Your task to perform on an android device: install app "Upside-Cash back on gas & food" Image 0: 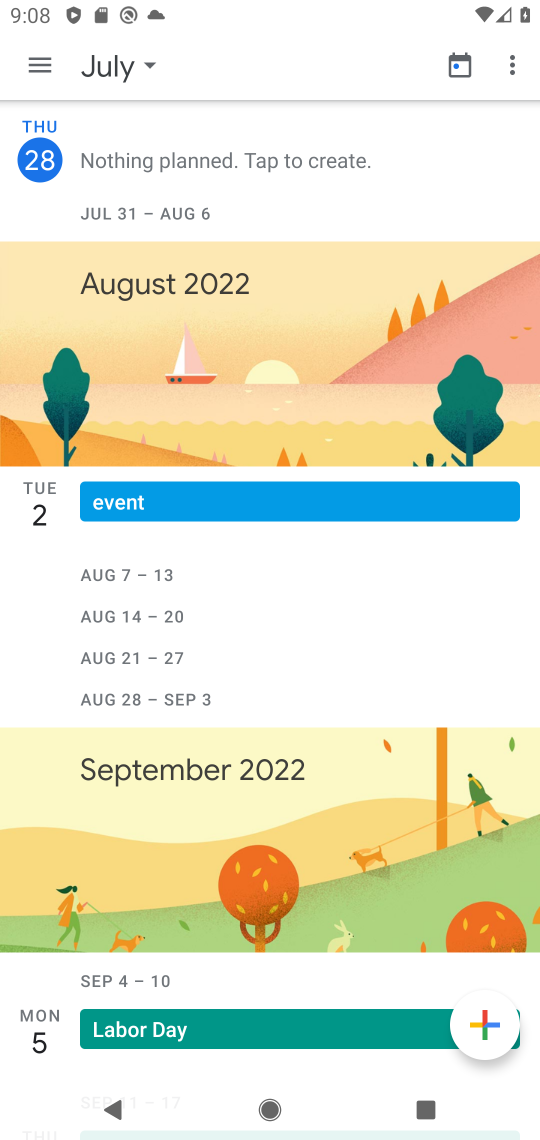
Step 0: press home button
Your task to perform on an android device: install app "Upside-Cash back on gas & food" Image 1: 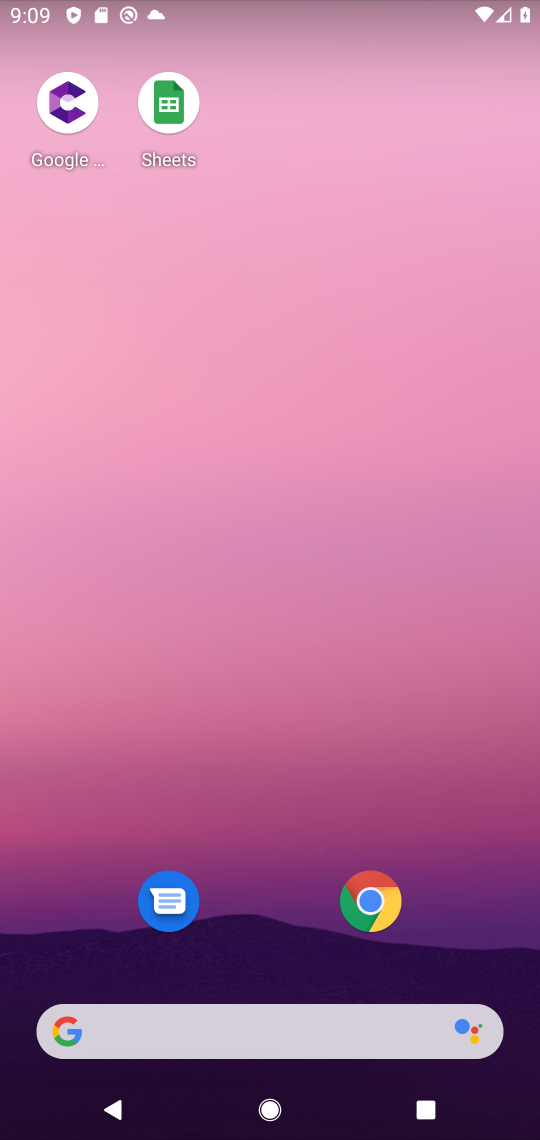
Step 1: drag from (302, 803) to (321, 215)
Your task to perform on an android device: install app "Upside-Cash back on gas & food" Image 2: 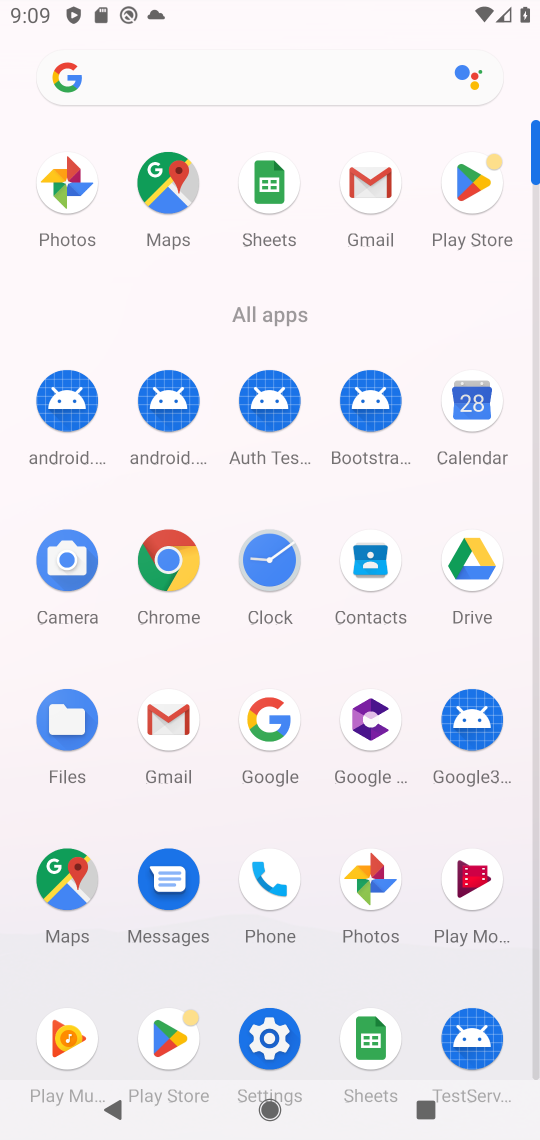
Step 2: click (474, 181)
Your task to perform on an android device: install app "Upside-Cash back on gas & food" Image 3: 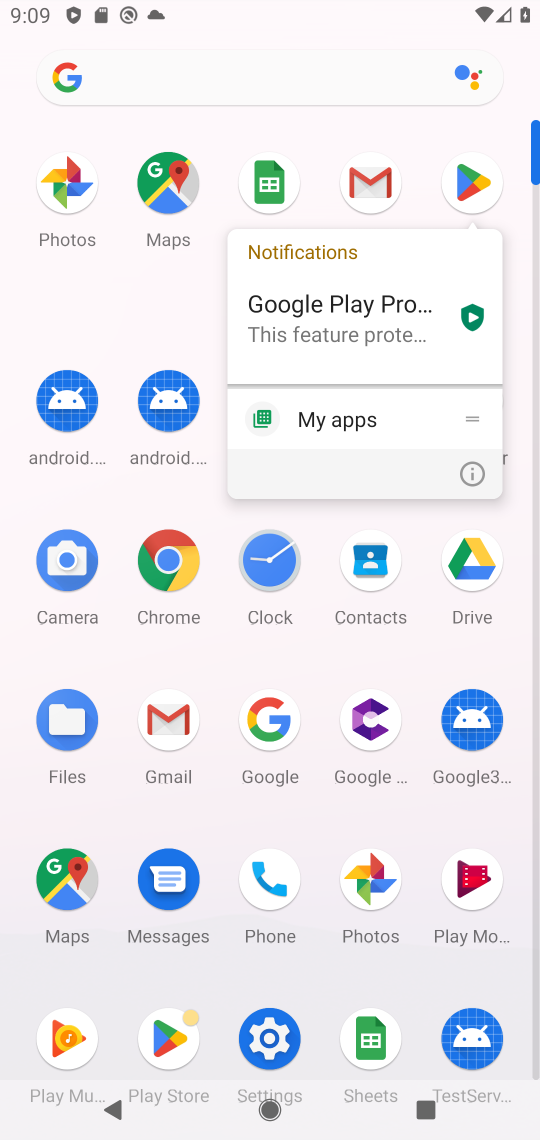
Step 3: click (474, 188)
Your task to perform on an android device: install app "Upside-Cash back on gas & food" Image 4: 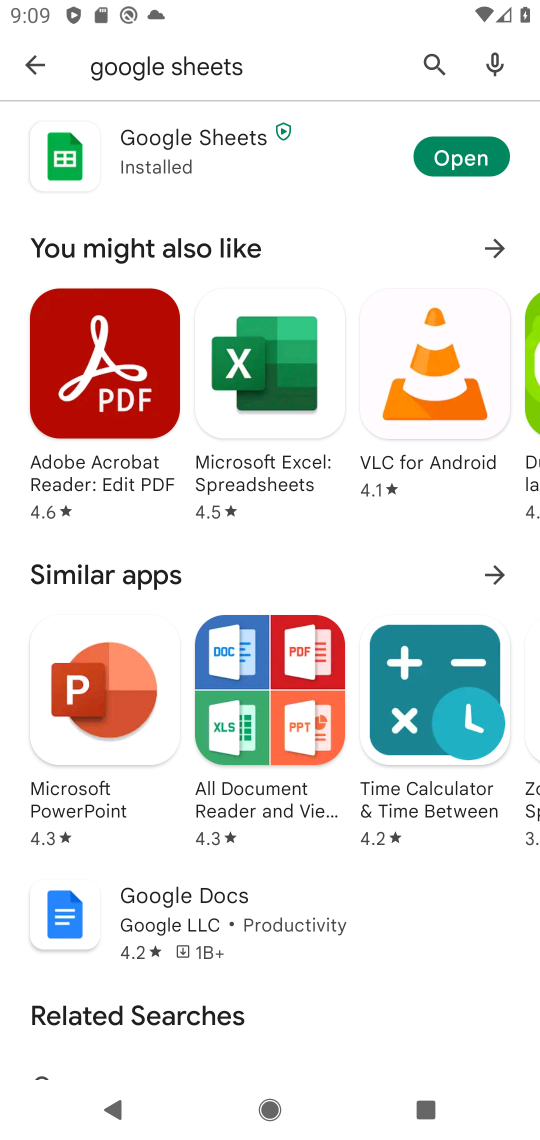
Step 4: click (31, 56)
Your task to perform on an android device: install app "Upside-Cash back on gas & food" Image 5: 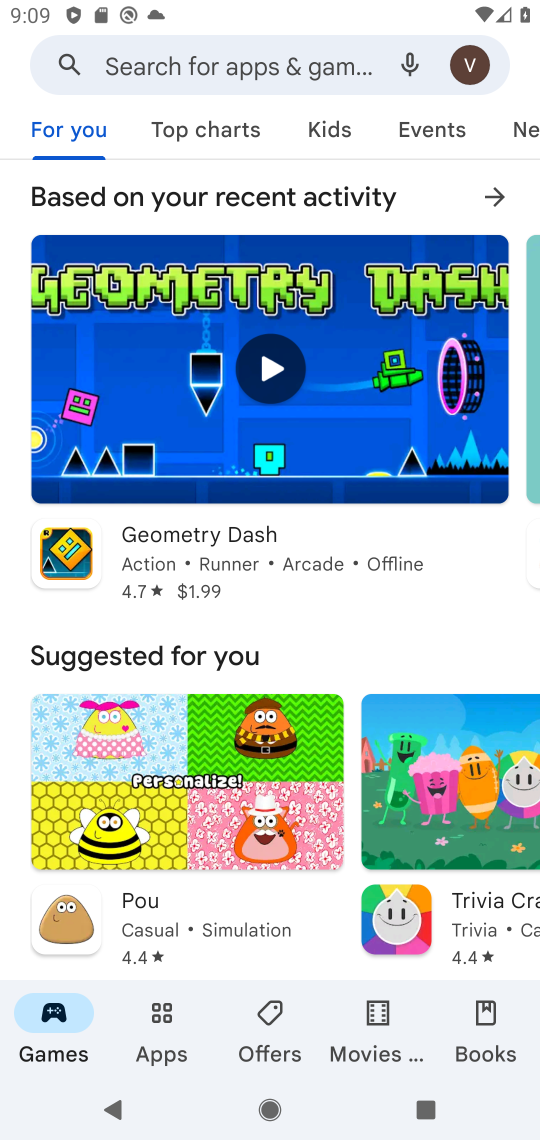
Step 5: click (253, 57)
Your task to perform on an android device: install app "Upside-Cash back on gas & food" Image 6: 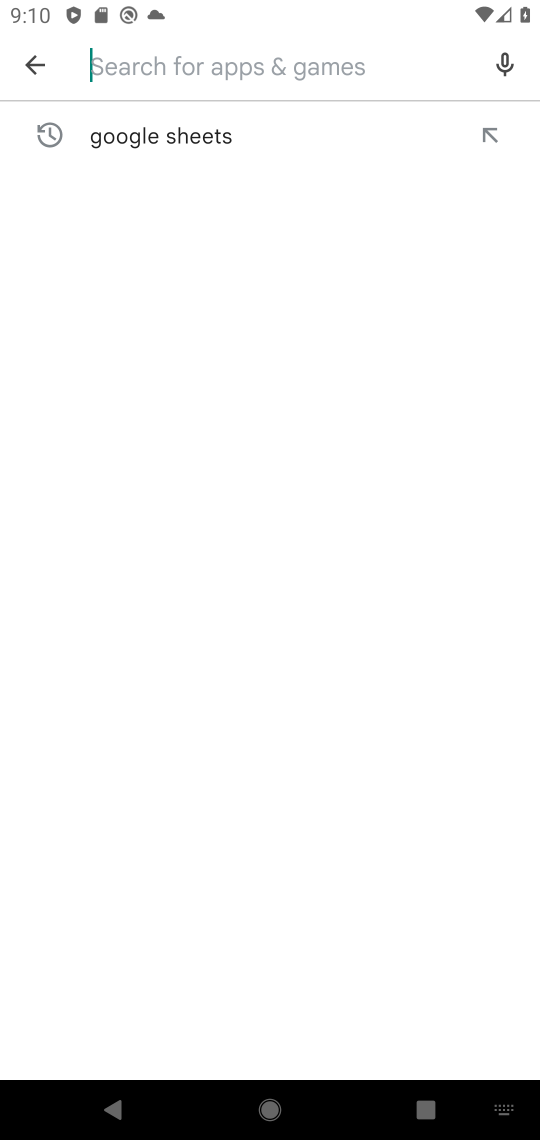
Step 6: type "Upside-Cash back on gas & food"
Your task to perform on an android device: install app "Upside-Cash back on gas & food" Image 7: 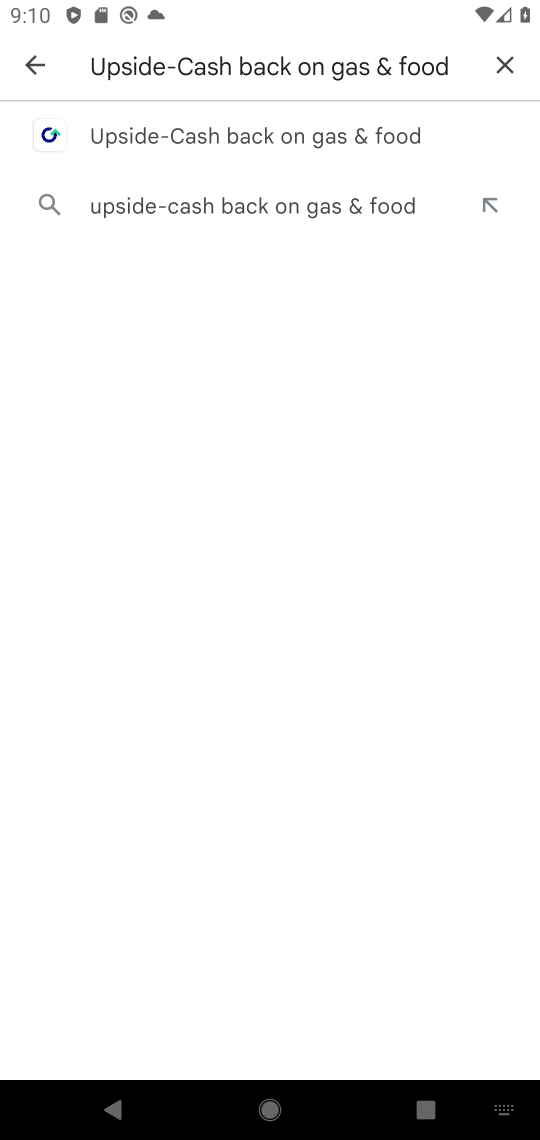
Step 7: click (277, 125)
Your task to perform on an android device: install app "Upside-Cash back on gas & food" Image 8: 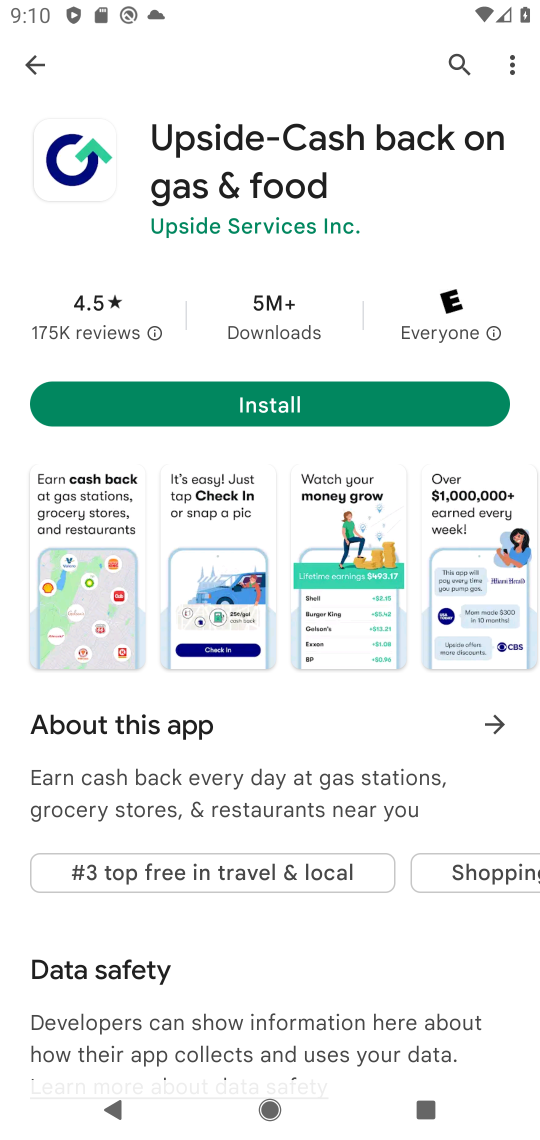
Step 8: click (333, 407)
Your task to perform on an android device: install app "Upside-Cash back on gas & food" Image 9: 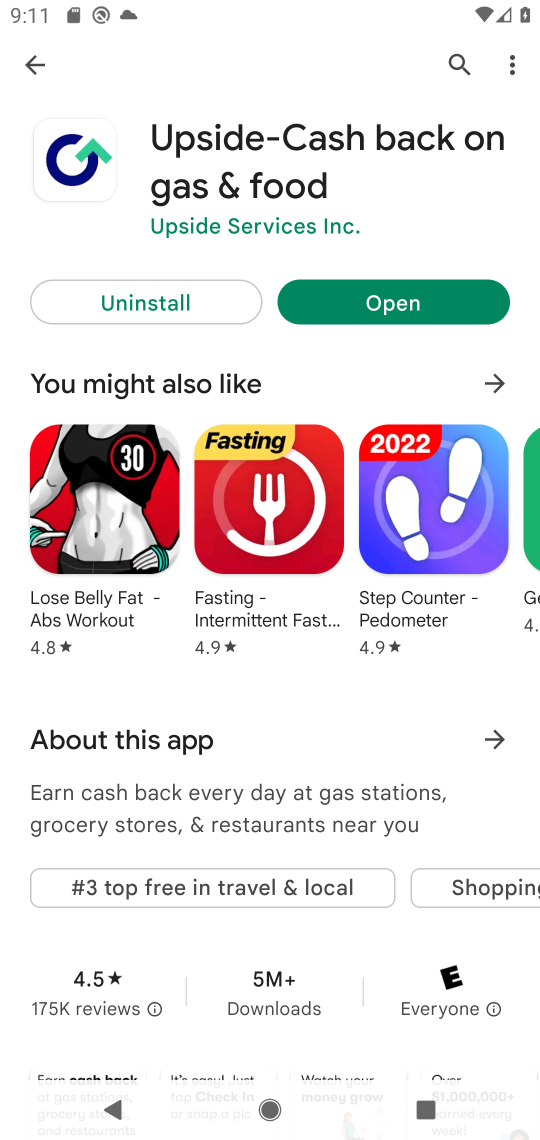
Step 9: task complete